Your task to perform on an android device: Go to accessibility settings Image 0: 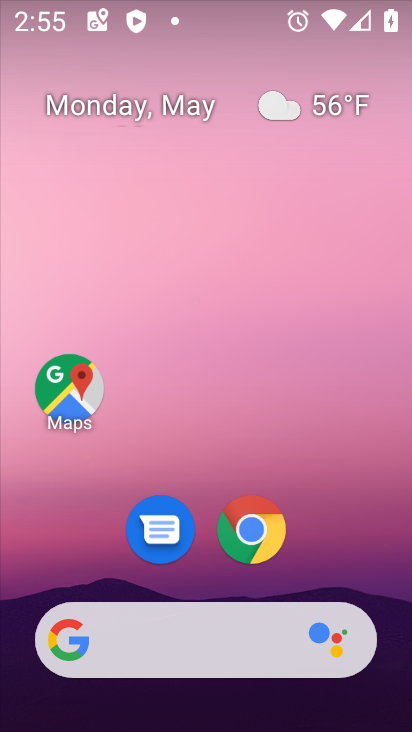
Step 0: drag from (333, 573) to (347, 64)
Your task to perform on an android device: Go to accessibility settings Image 1: 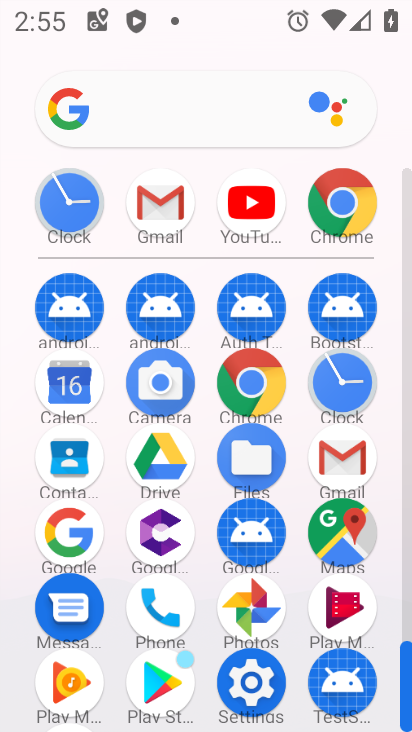
Step 1: click (247, 677)
Your task to perform on an android device: Go to accessibility settings Image 2: 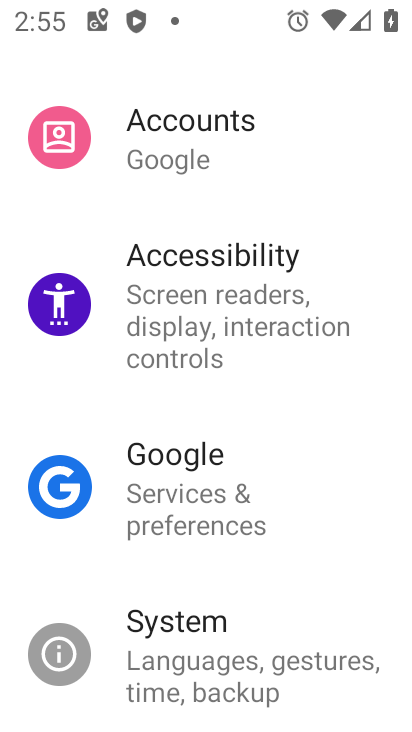
Step 2: click (208, 273)
Your task to perform on an android device: Go to accessibility settings Image 3: 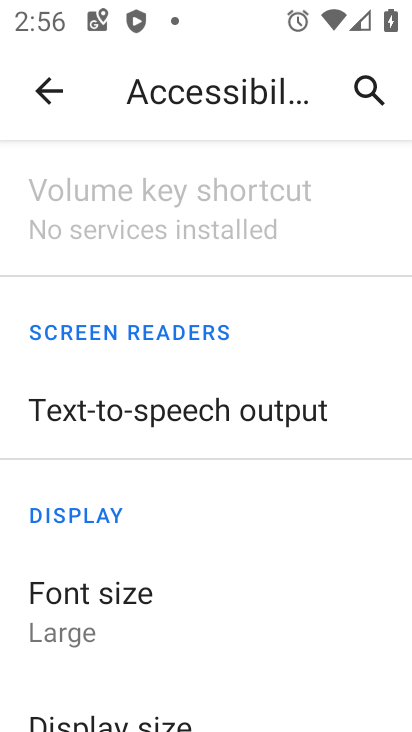
Step 3: task complete